Your task to perform on an android device: Open the calendar and show me this week's events? Image 0: 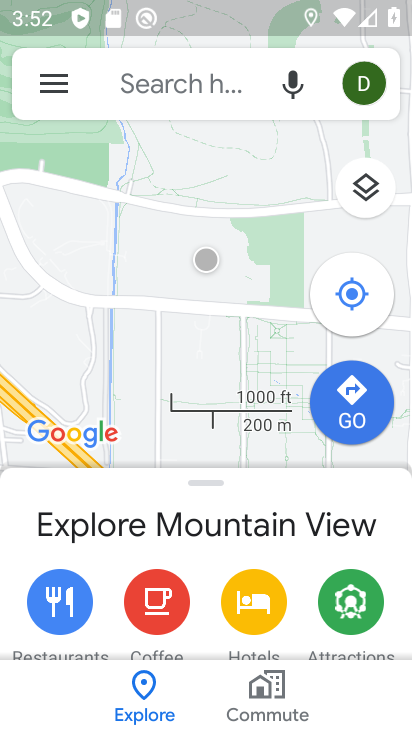
Step 0: press home button
Your task to perform on an android device: Open the calendar and show me this week's events? Image 1: 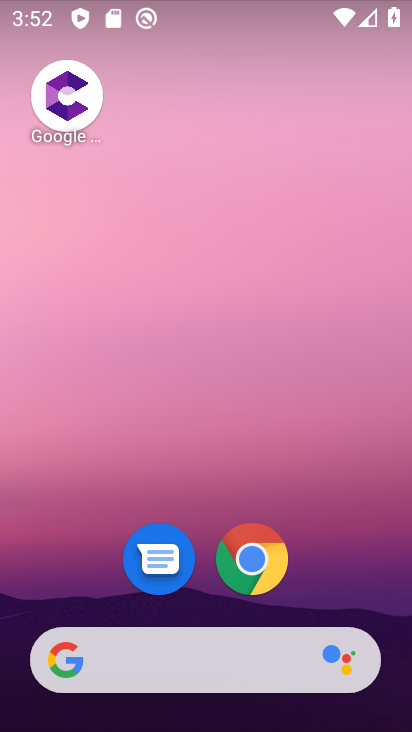
Step 1: drag from (323, 285) to (310, 220)
Your task to perform on an android device: Open the calendar and show me this week's events? Image 2: 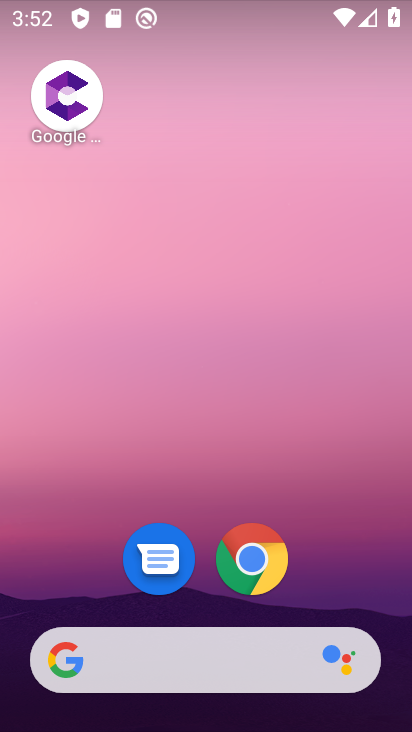
Step 2: drag from (378, 531) to (346, 234)
Your task to perform on an android device: Open the calendar and show me this week's events? Image 3: 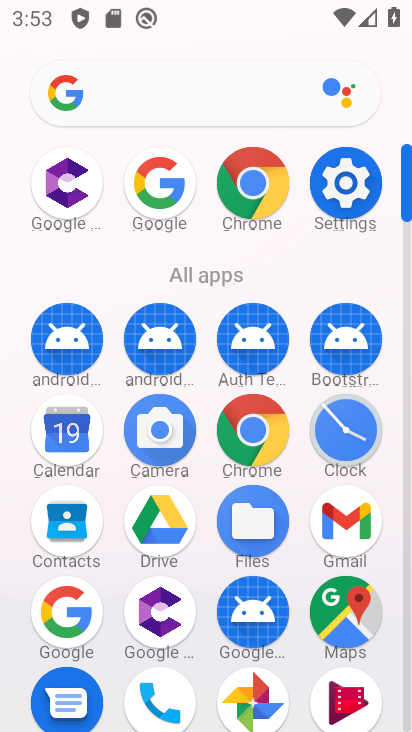
Step 3: drag from (340, 435) to (63, 441)
Your task to perform on an android device: Open the calendar and show me this week's events? Image 4: 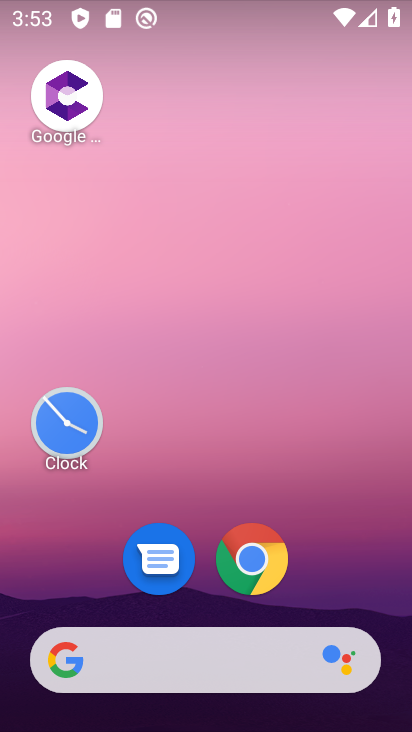
Step 4: press back button
Your task to perform on an android device: Open the calendar and show me this week's events? Image 5: 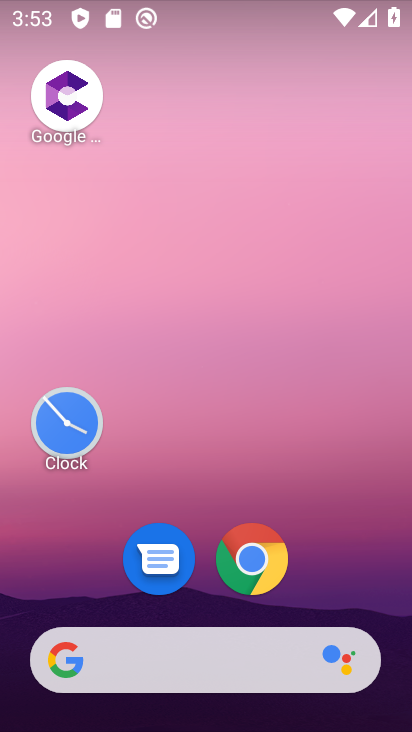
Step 5: drag from (370, 607) to (283, 204)
Your task to perform on an android device: Open the calendar and show me this week's events? Image 6: 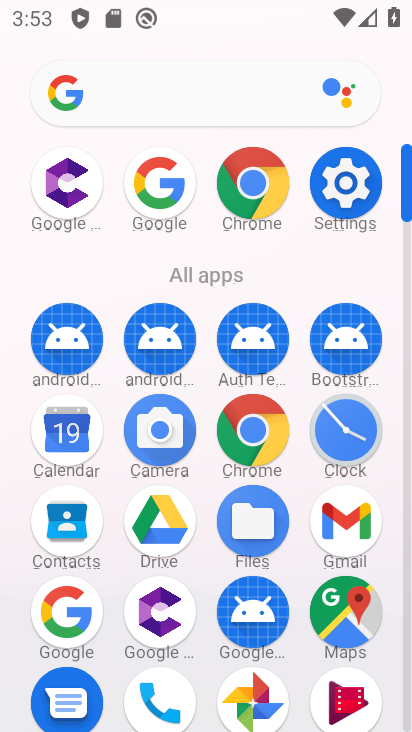
Step 6: click (52, 432)
Your task to perform on an android device: Open the calendar and show me this week's events? Image 7: 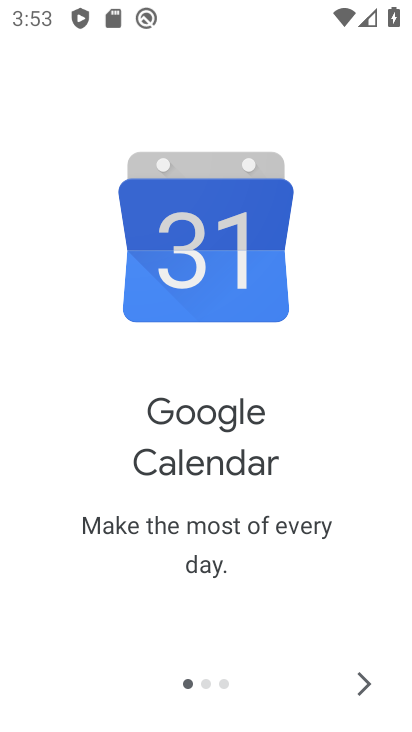
Step 7: click (364, 687)
Your task to perform on an android device: Open the calendar and show me this week's events? Image 8: 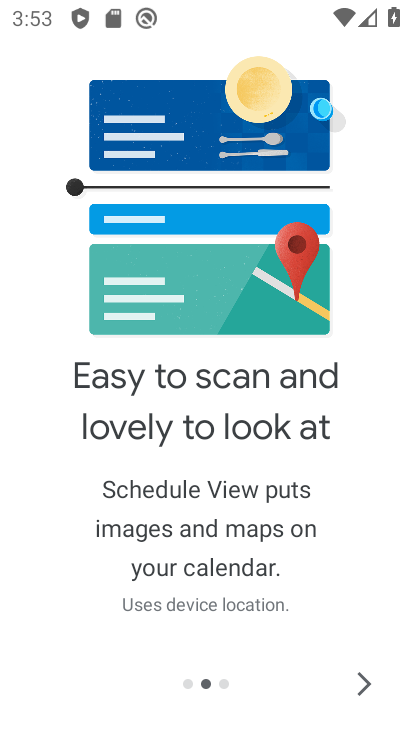
Step 8: click (364, 687)
Your task to perform on an android device: Open the calendar and show me this week's events? Image 9: 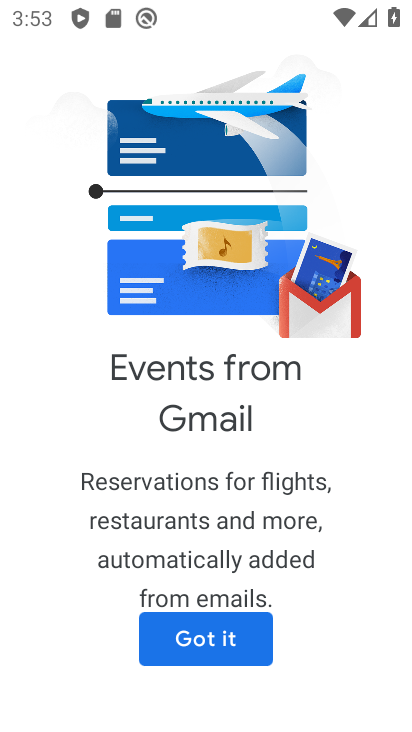
Step 9: click (221, 637)
Your task to perform on an android device: Open the calendar and show me this week's events? Image 10: 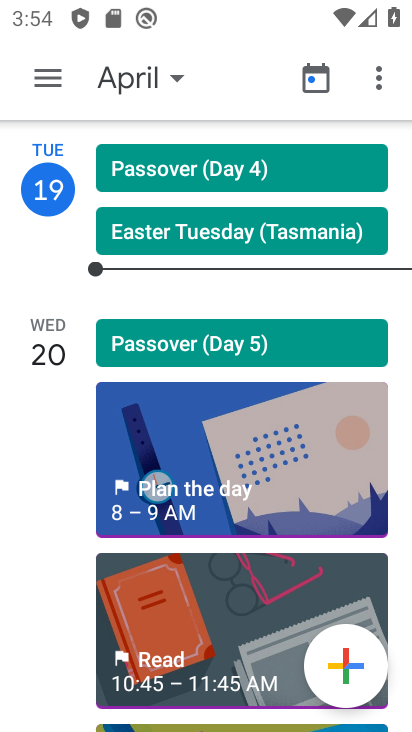
Step 10: click (171, 79)
Your task to perform on an android device: Open the calendar and show me this week's events? Image 11: 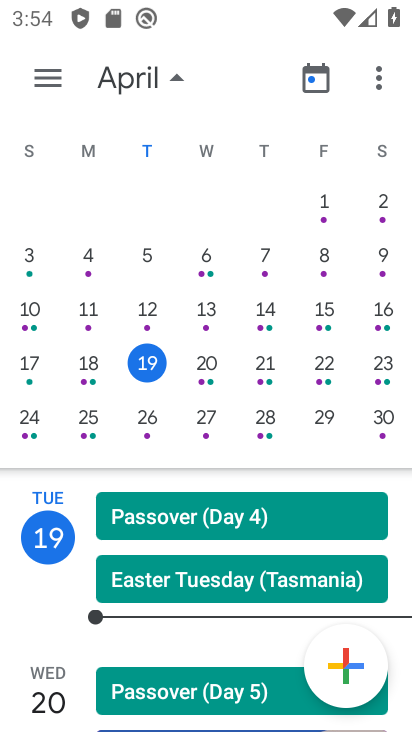
Step 11: click (208, 364)
Your task to perform on an android device: Open the calendar and show me this week's events? Image 12: 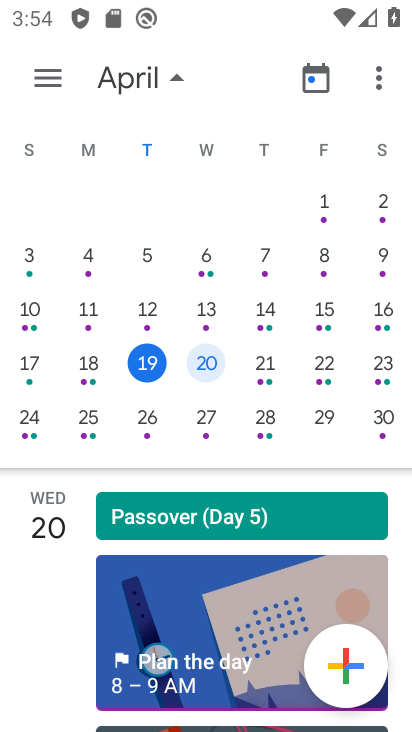
Step 12: task complete